Your task to perform on an android device: Go to battery settings Image 0: 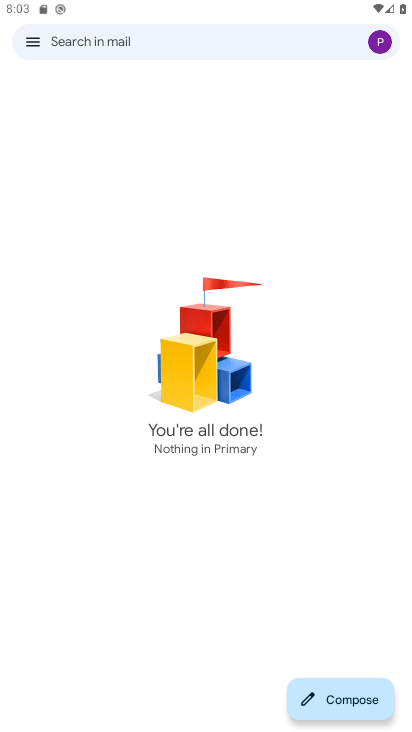
Step 0: press home button
Your task to perform on an android device: Go to battery settings Image 1: 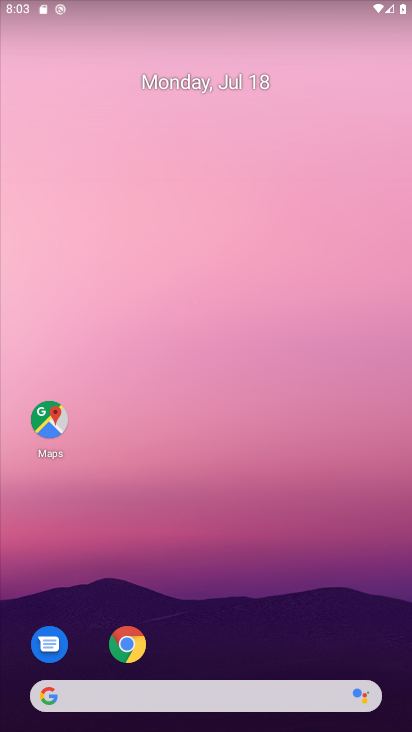
Step 1: drag from (249, 630) to (301, 0)
Your task to perform on an android device: Go to battery settings Image 2: 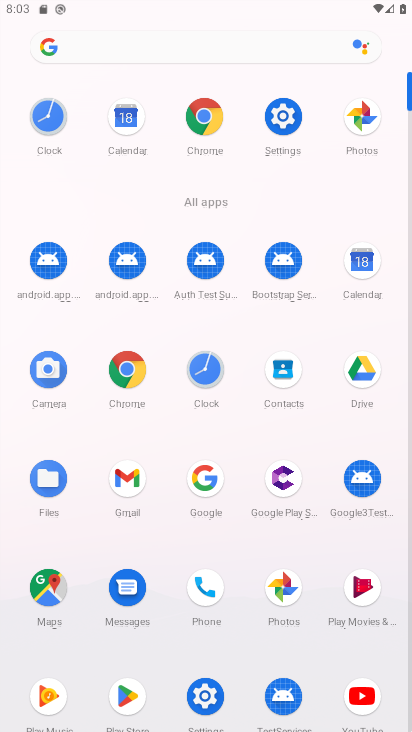
Step 2: click (292, 124)
Your task to perform on an android device: Go to battery settings Image 3: 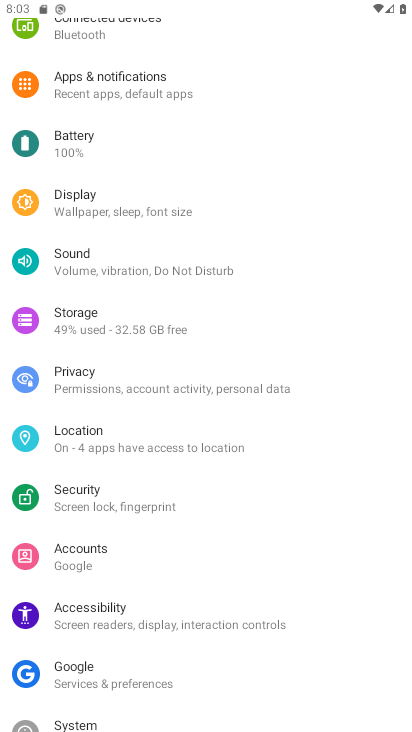
Step 3: click (217, 155)
Your task to perform on an android device: Go to battery settings Image 4: 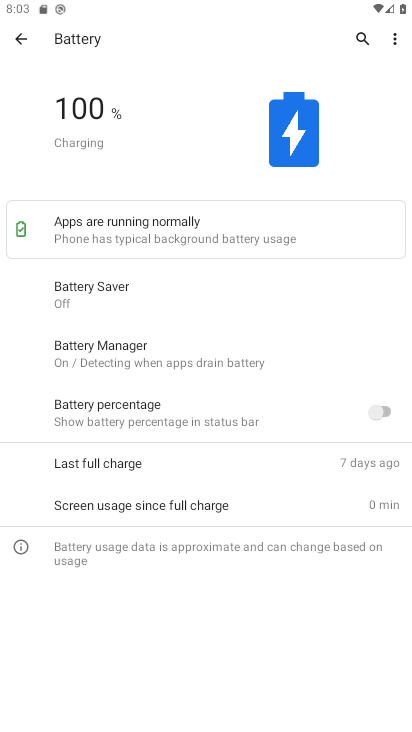
Step 4: task complete